Your task to perform on an android device: turn off location history Image 0: 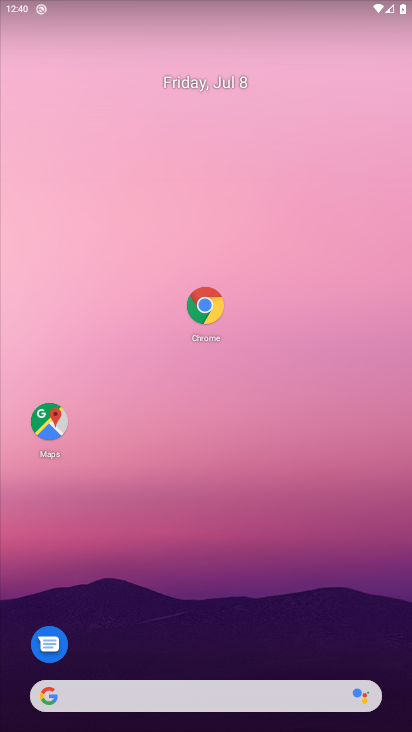
Step 0: drag from (206, 668) to (201, 317)
Your task to perform on an android device: turn off location history Image 1: 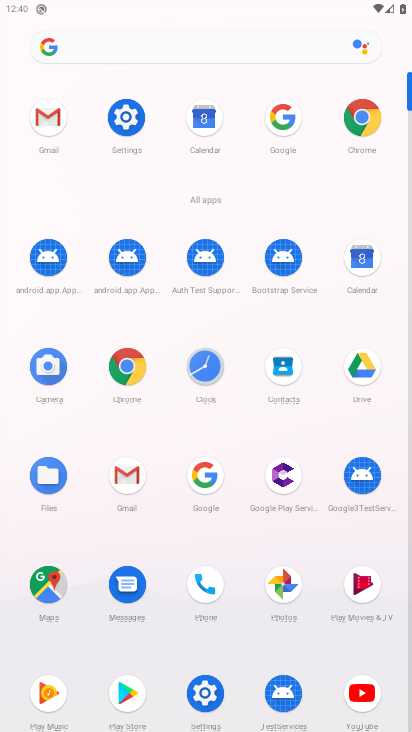
Step 1: click (123, 118)
Your task to perform on an android device: turn off location history Image 2: 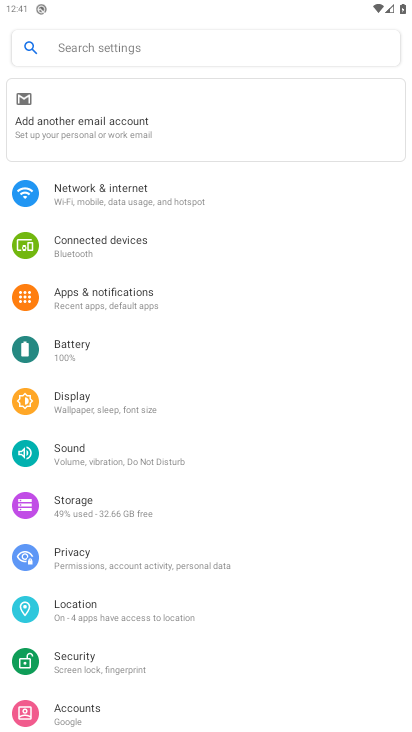
Step 2: click (94, 607)
Your task to perform on an android device: turn off location history Image 3: 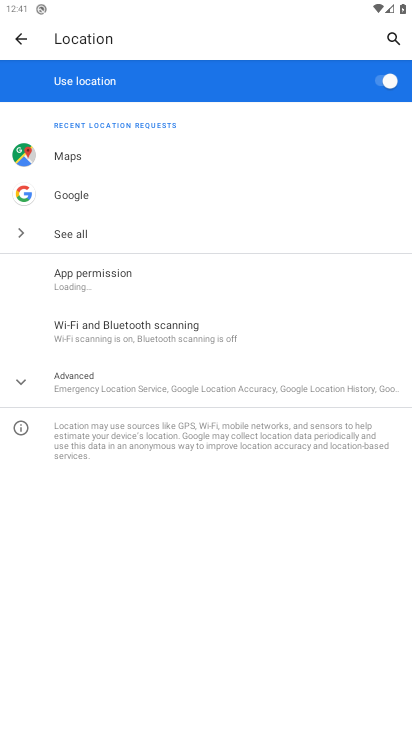
Step 3: click (96, 387)
Your task to perform on an android device: turn off location history Image 4: 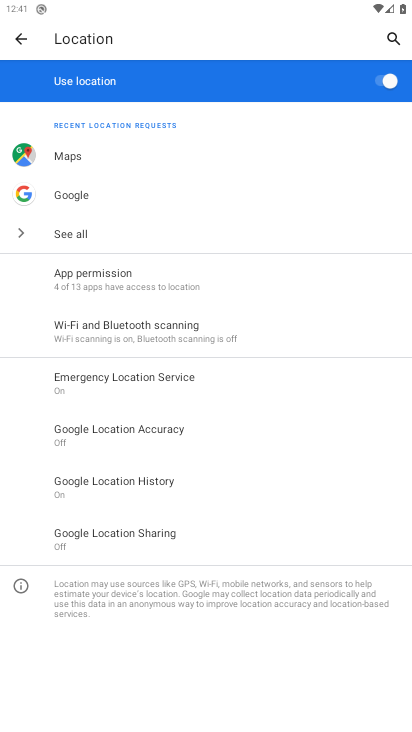
Step 4: click (136, 490)
Your task to perform on an android device: turn off location history Image 5: 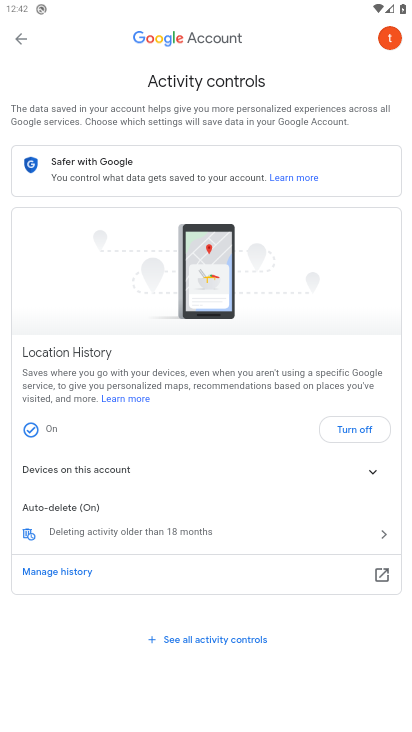
Step 5: click (346, 430)
Your task to perform on an android device: turn off location history Image 6: 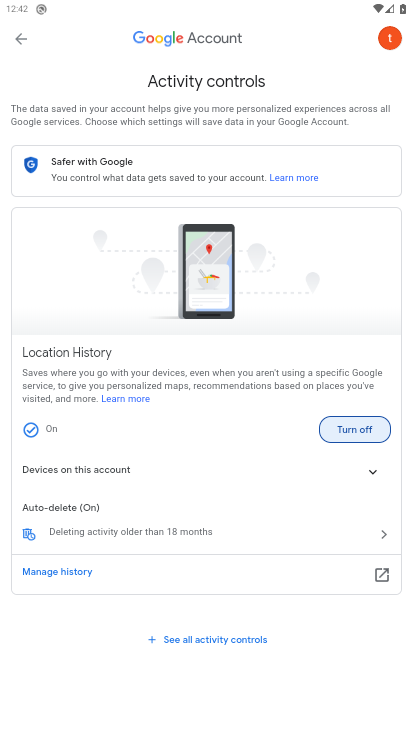
Step 6: click (346, 430)
Your task to perform on an android device: turn off location history Image 7: 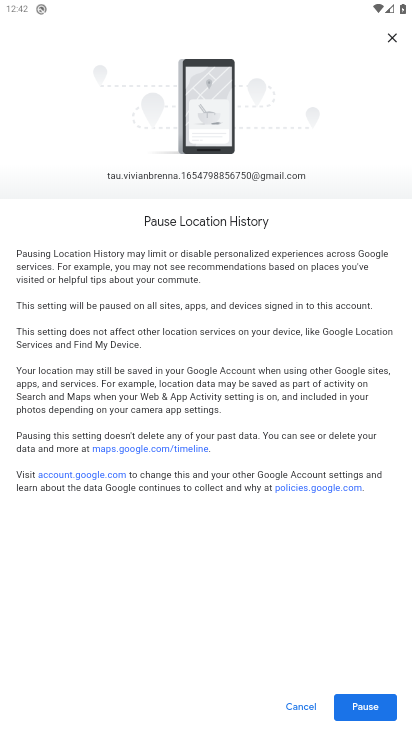
Step 7: click (365, 707)
Your task to perform on an android device: turn off location history Image 8: 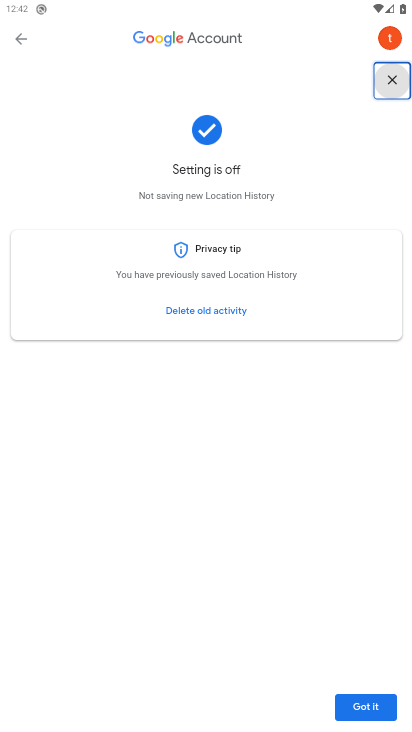
Step 8: click (362, 707)
Your task to perform on an android device: turn off location history Image 9: 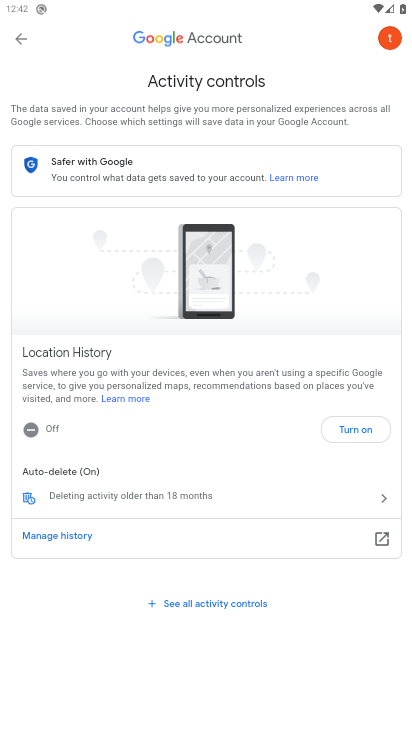
Step 9: task complete